Your task to perform on an android device: Search for Mexican restaurants on Maps Image 0: 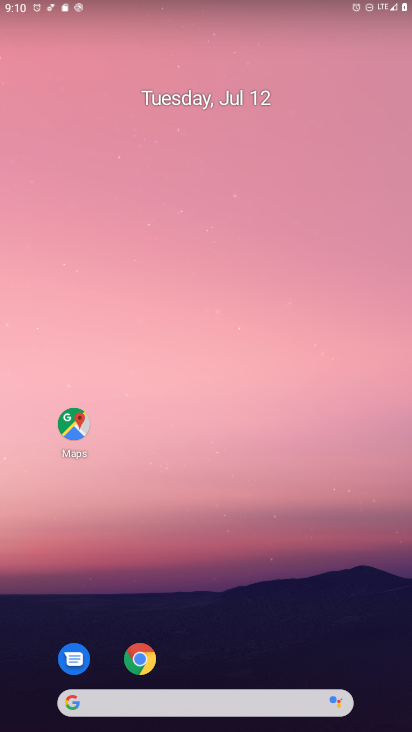
Step 0: click (74, 425)
Your task to perform on an android device: Search for Mexican restaurants on Maps Image 1: 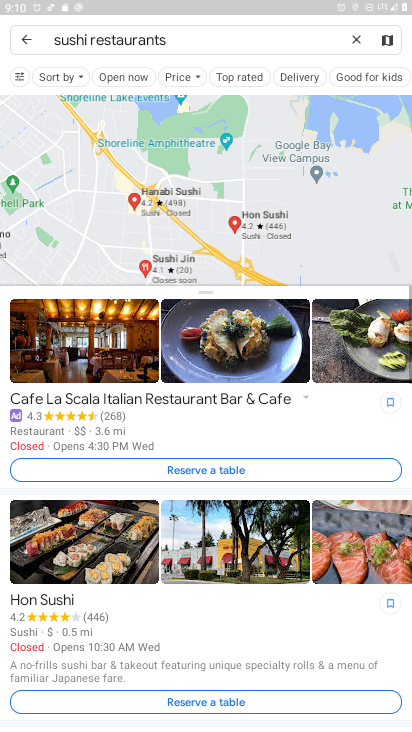
Step 1: click (356, 36)
Your task to perform on an android device: Search for Mexican restaurants on Maps Image 2: 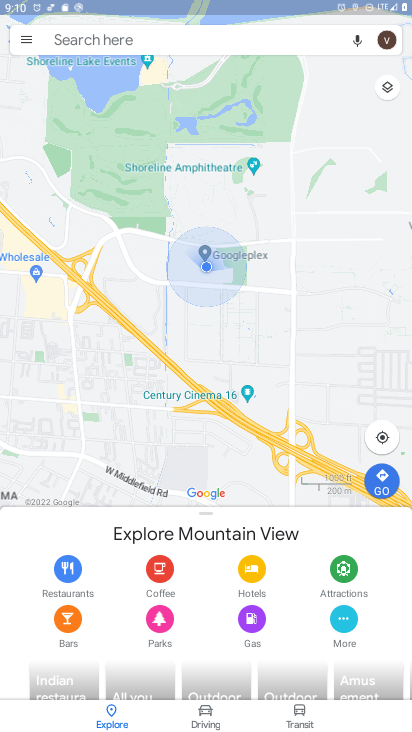
Step 2: click (252, 39)
Your task to perform on an android device: Search for Mexican restaurants on Maps Image 3: 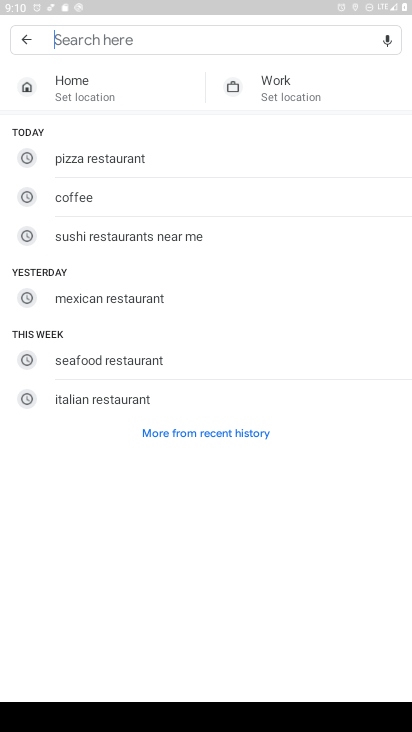
Step 3: type "Mexican restaurants"
Your task to perform on an android device: Search for Mexican restaurants on Maps Image 4: 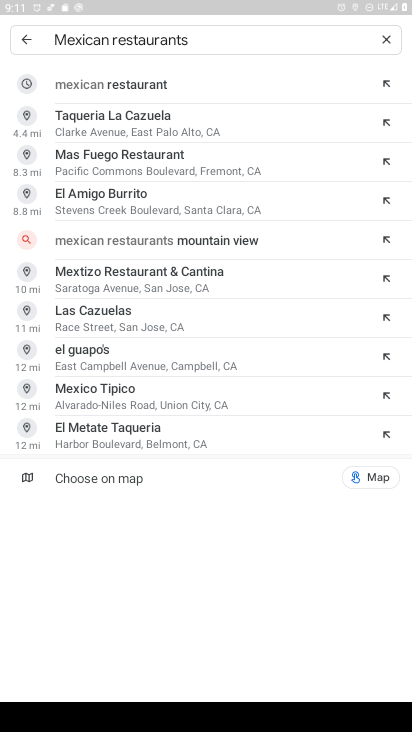
Step 4: click (102, 87)
Your task to perform on an android device: Search for Mexican restaurants on Maps Image 5: 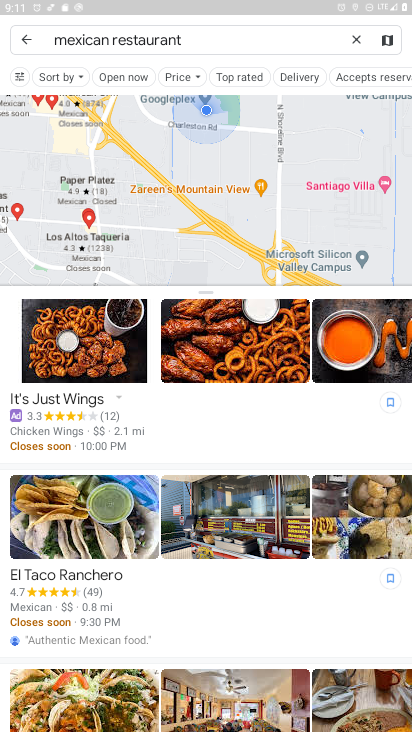
Step 5: task complete